Your task to perform on an android device: Open the calendar app, open the side menu, and click the "Day" option Image 0: 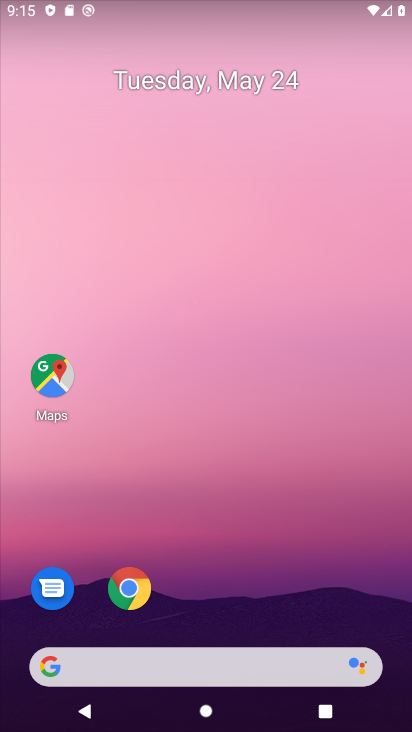
Step 0: drag from (214, 593) to (260, 49)
Your task to perform on an android device: Open the calendar app, open the side menu, and click the "Day" option Image 1: 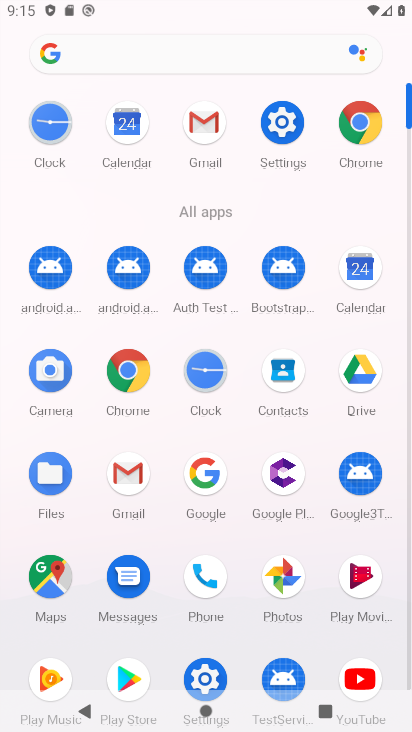
Step 1: click (362, 264)
Your task to perform on an android device: Open the calendar app, open the side menu, and click the "Day" option Image 2: 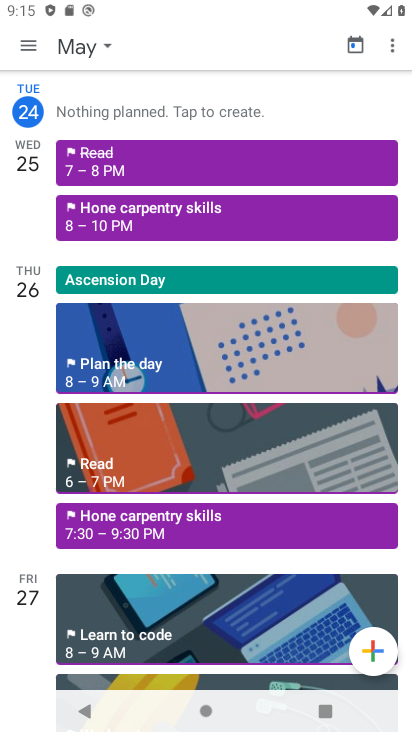
Step 2: click (25, 44)
Your task to perform on an android device: Open the calendar app, open the side menu, and click the "Day" option Image 3: 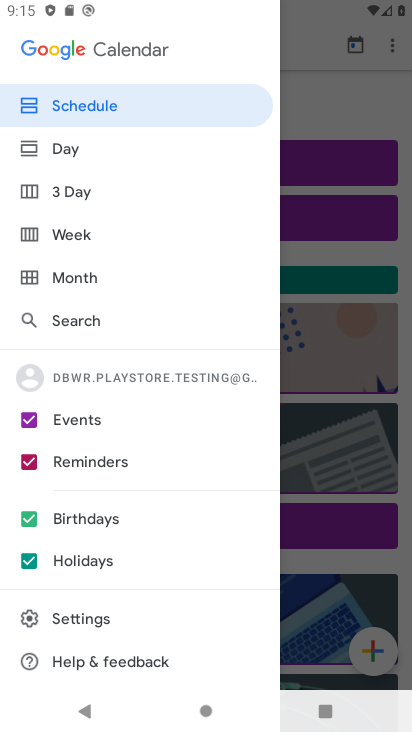
Step 3: click (74, 152)
Your task to perform on an android device: Open the calendar app, open the side menu, and click the "Day" option Image 4: 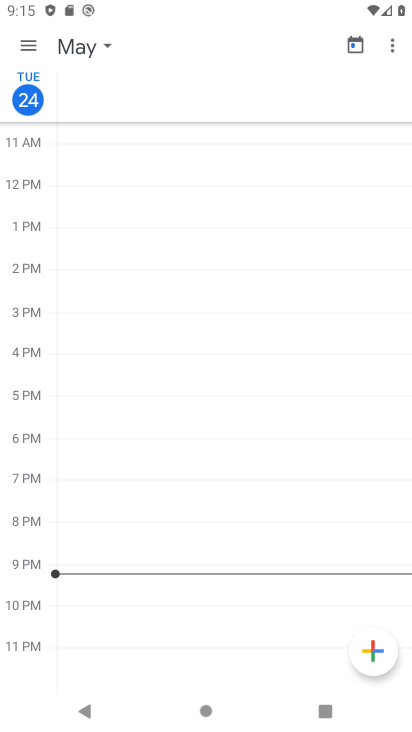
Step 4: click (76, 37)
Your task to perform on an android device: Open the calendar app, open the side menu, and click the "Day" option Image 5: 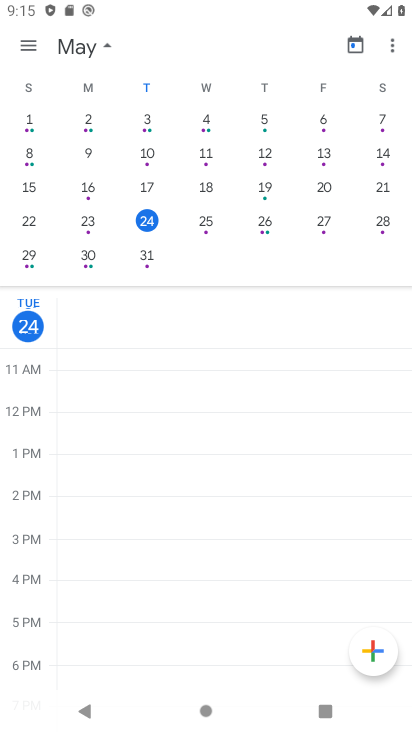
Step 5: click (25, 36)
Your task to perform on an android device: Open the calendar app, open the side menu, and click the "Day" option Image 6: 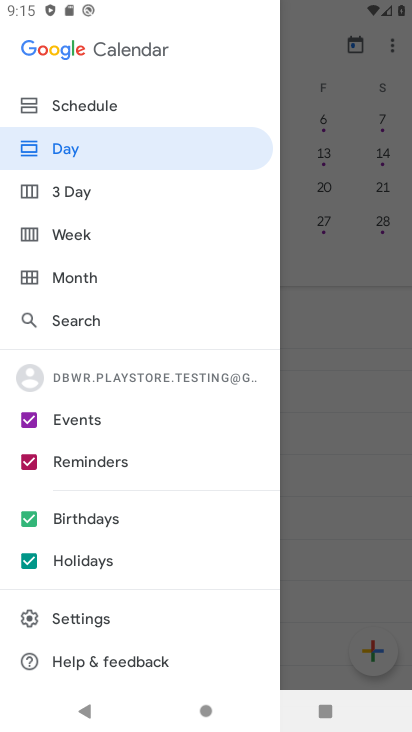
Step 6: click (77, 109)
Your task to perform on an android device: Open the calendar app, open the side menu, and click the "Day" option Image 7: 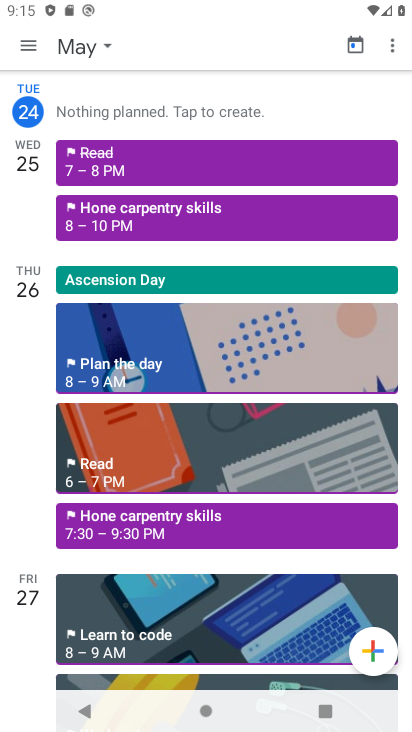
Step 7: click (29, 47)
Your task to perform on an android device: Open the calendar app, open the side menu, and click the "Day" option Image 8: 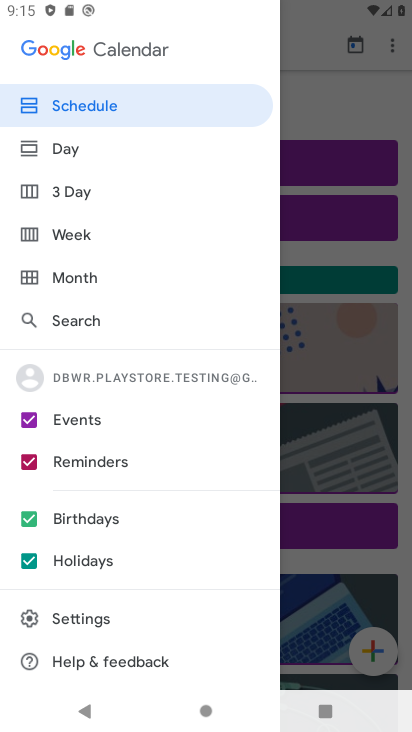
Step 8: click (82, 138)
Your task to perform on an android device: Open the calendar app, open the side menu, and click the "Day" option Image 9: 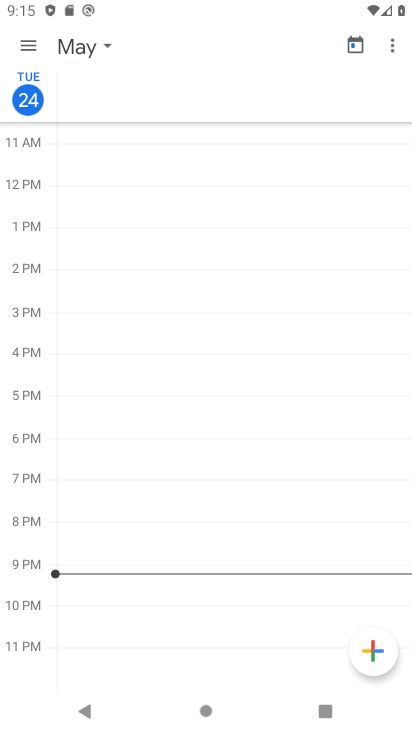
Step 9: click (26, 38)
Your task to perform on an android device: Open the calendar app, open the side menu, and click the "Day" option Image 10: 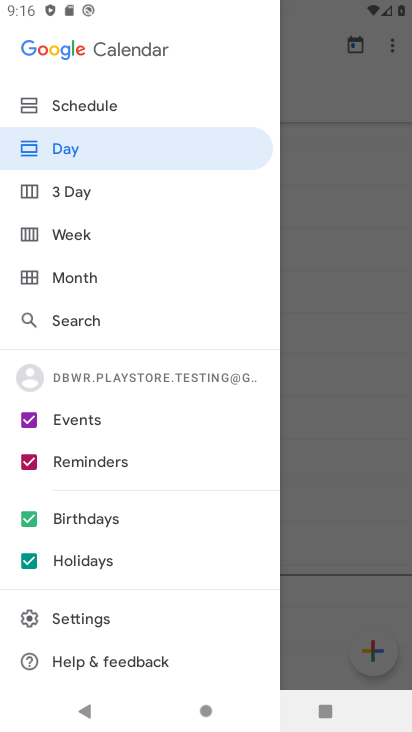
Step 10: click (128, 153)
Your task to perform on an android device: Open the calendar app, open the side menu, and click the "Day" option Image 11: 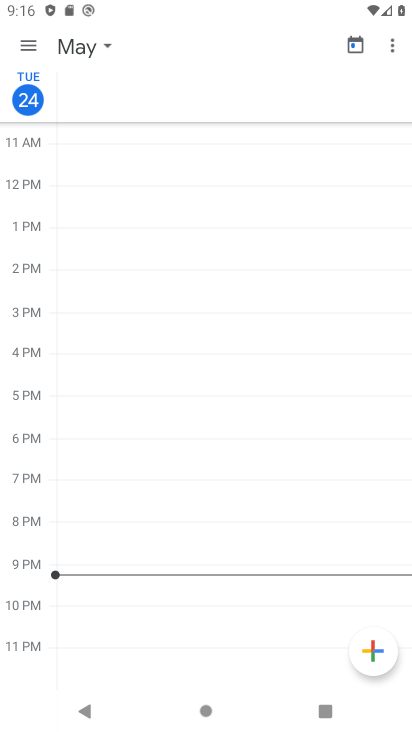
Step 11: task complete